Your task to perform on an android device: check google app version Image 0: 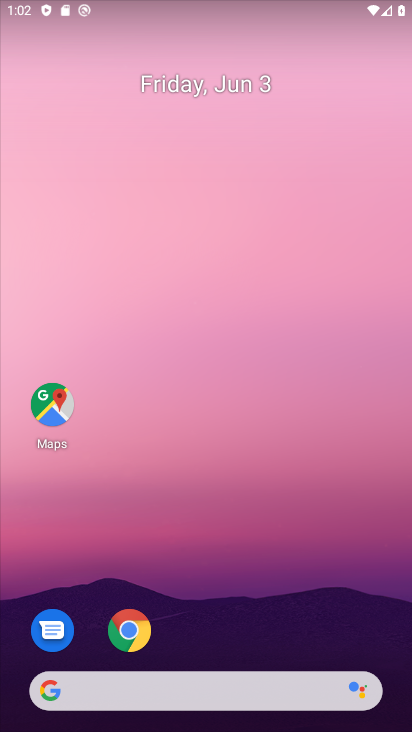
Step 0: drag from (209, 707) to (168, 60)
Your task to perform on an android device: check google app version Image 1: 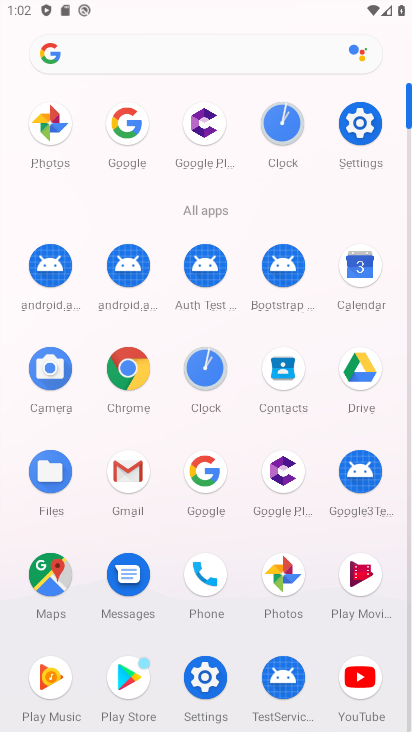
Step 1: click (206, 467)
Your task to perform on an android device: check google app version Image 2: 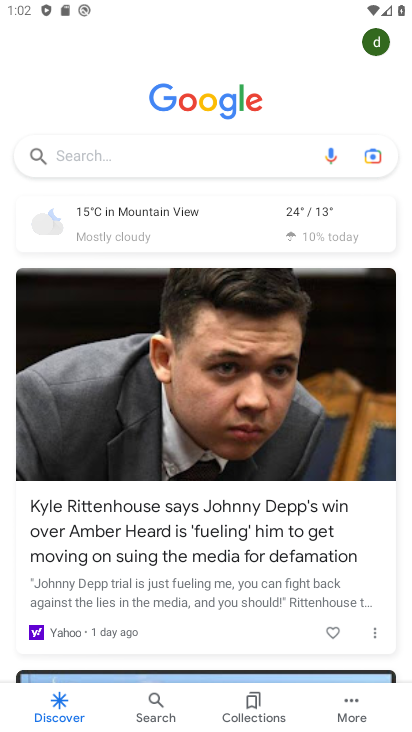
Step 2: click (346, 696)
Your task to perform on an android device: check google app version Image 3: 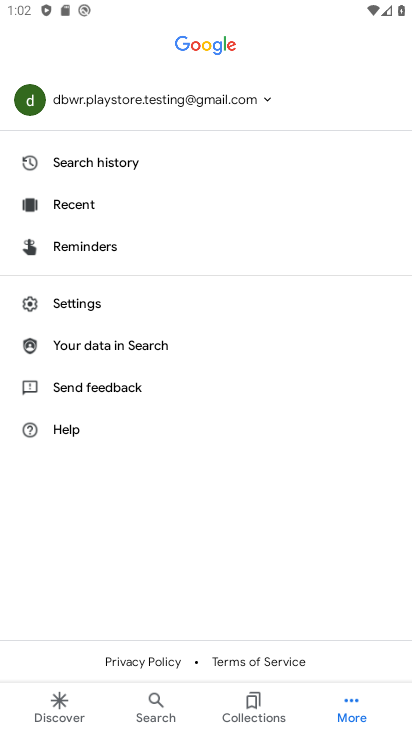
Step 3: click (81, 303)
Your task to perform on an android device: check google app version Image 4: 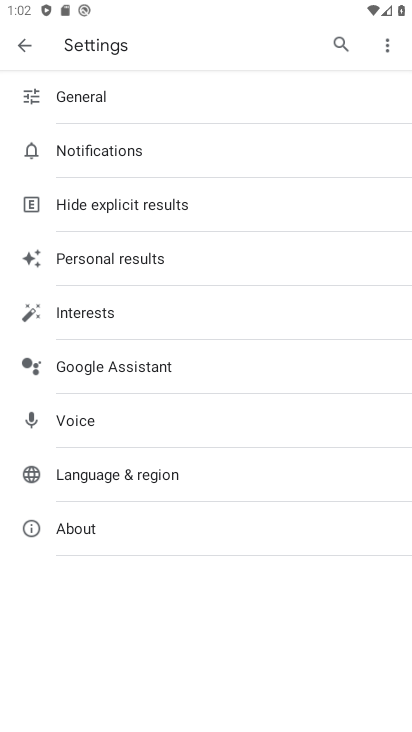
Step 4: click (88, 520)
Your task to perform on an android device: check google app version Image 5: 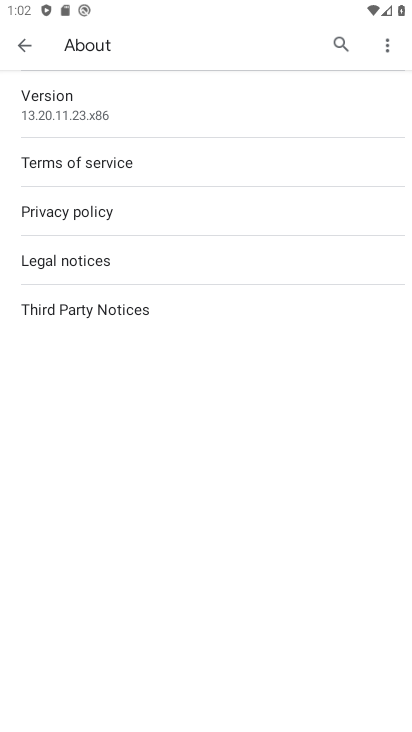
Step 5: task complete